Your task to perform on an android device: delete location history Image 0: 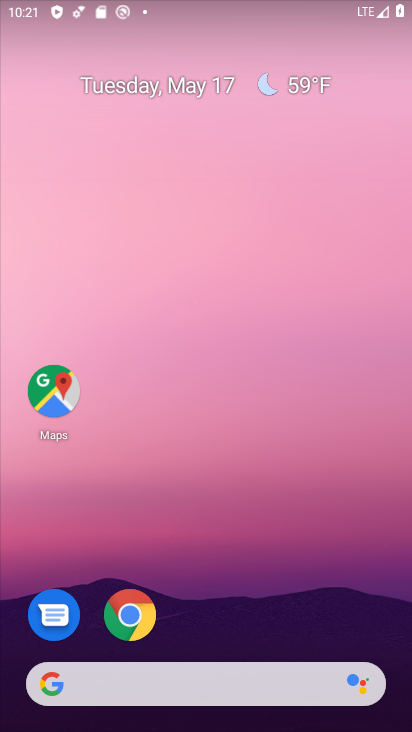
Step 0: click (55, 397)
Your task to perform on an android device: delete location history Image 1: 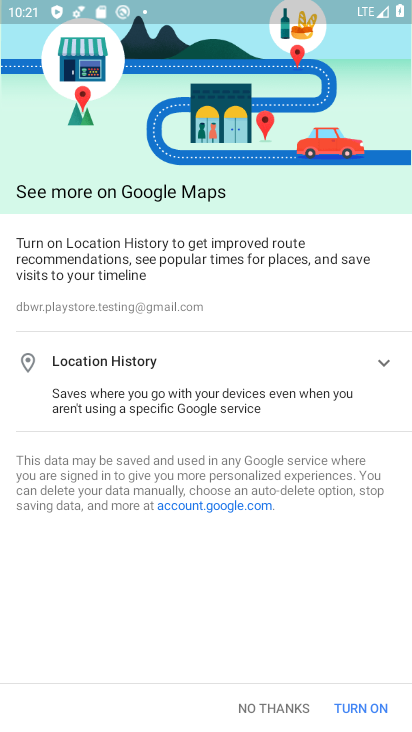
Step 1: click (269, 706)
Your task to perform on an android device: delete location history Image 2: 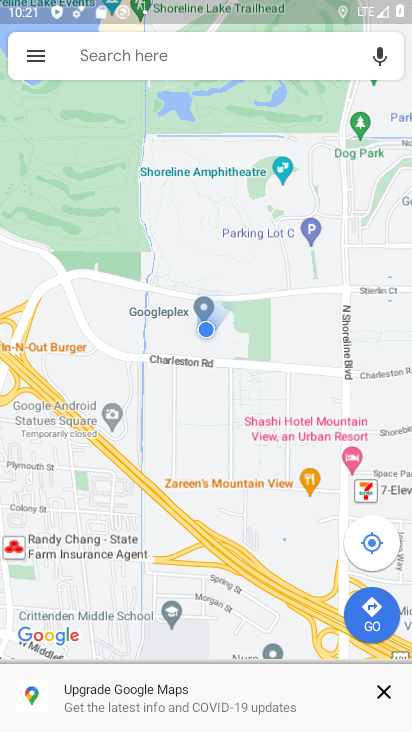
Step 2: click (35, 57)
Your task to perform on an android device: delete location history Image 3: 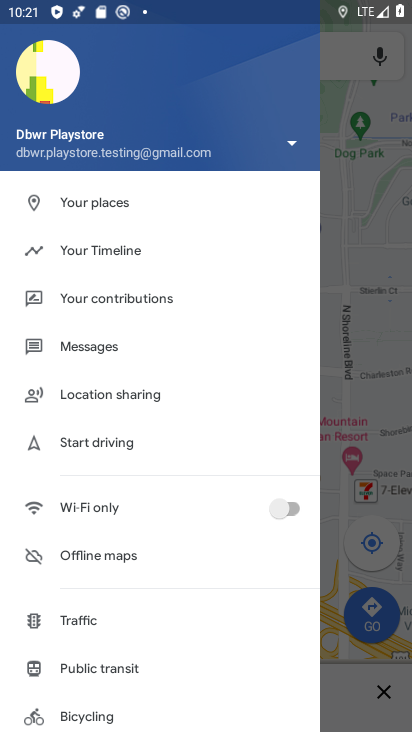
Step 3: click (105, 251)
Your task to perform on an android device: delete location history Image 4: 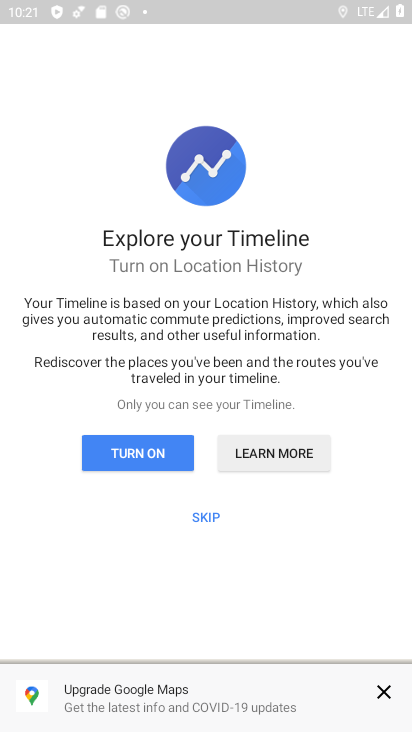
Step 4: click (168, 465)
Your task to perform on an android device: delete location history Image 5: 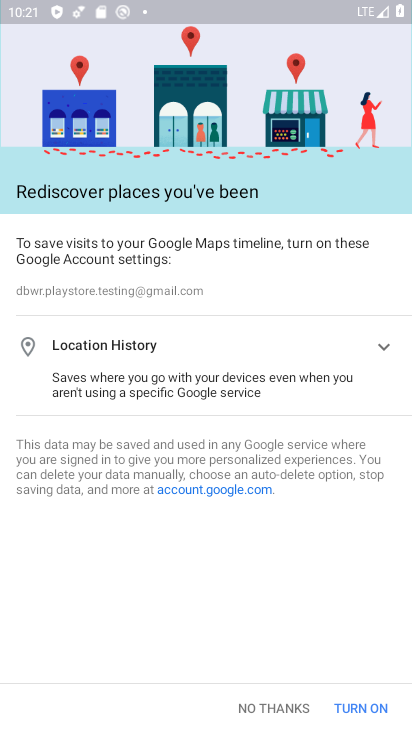
Step 5: click (266, 702)
Your task to perform on an android device: delete location history Image 6: 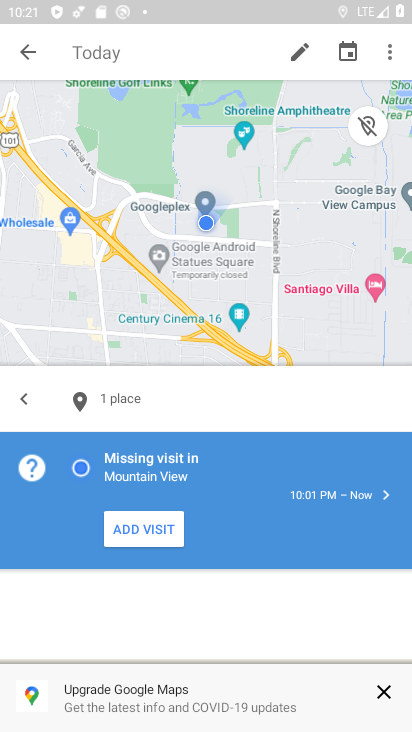
Step 6: click (386, 55)
Your task to perform on an android device: delete location history Image 7: 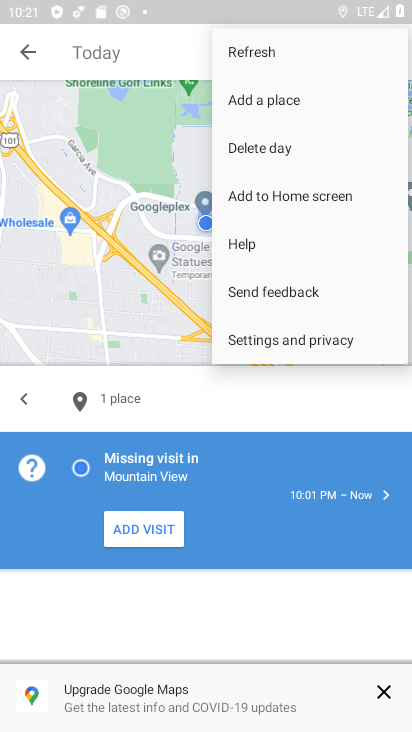
Step 7: click (283, 334)
Your task to perform on an android device: delete location history Image 8: 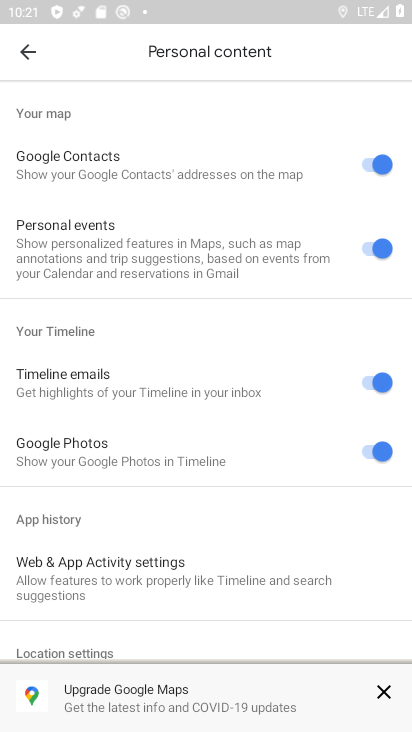
Step 8: drag from (247, 588) to (386, 131)
Your task to perform on an android device: delete location history Image 9: 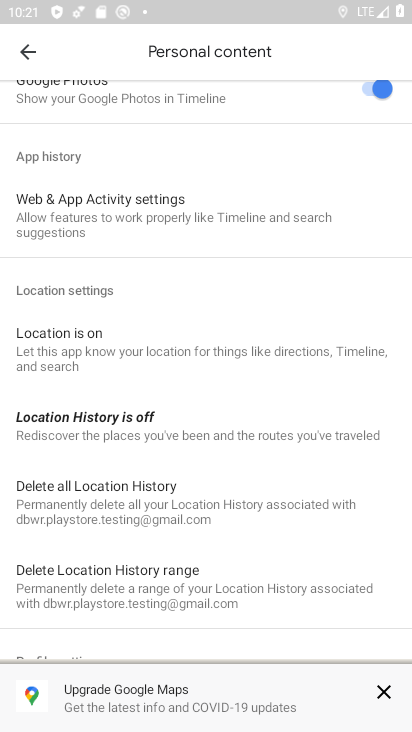
Step 9: click (132, 504)
Your task to perform on an android device: delete location history Image 10: 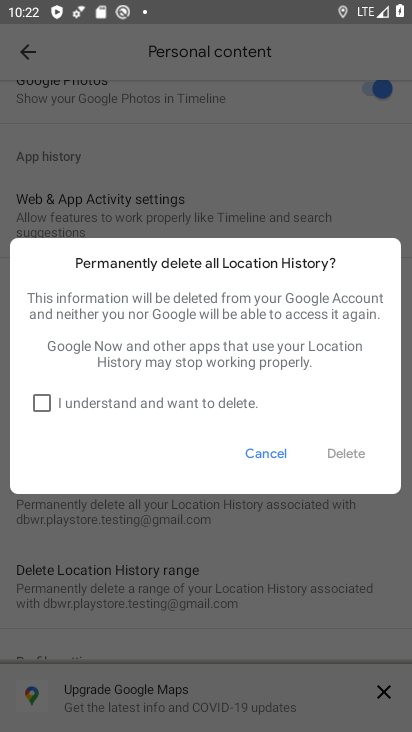
Step 10: click (45, 396)
Your task to perform on an android device: delete location history Image 11: 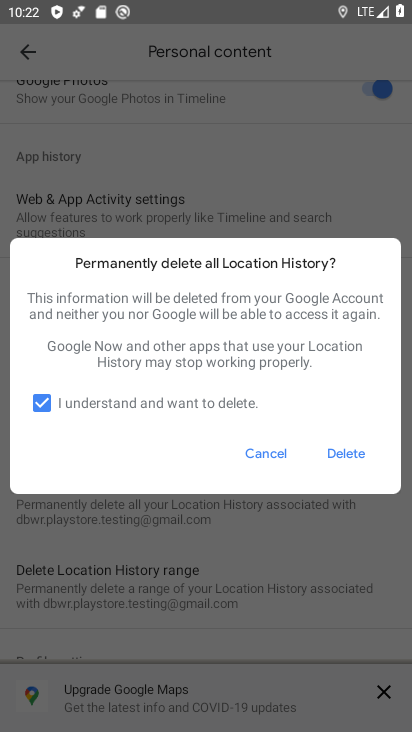
Step 11: click (352, 455)
Your task to perform on an android device: delete location history Image 12: 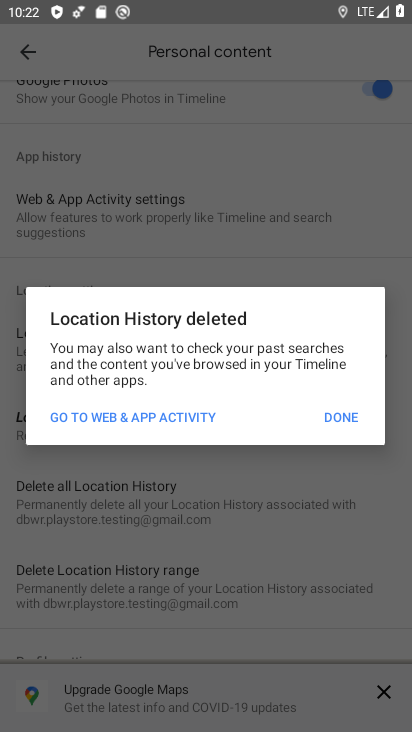
Step 12: click (329, 426)
Your task to perform on an android device: delete location history Image 13: 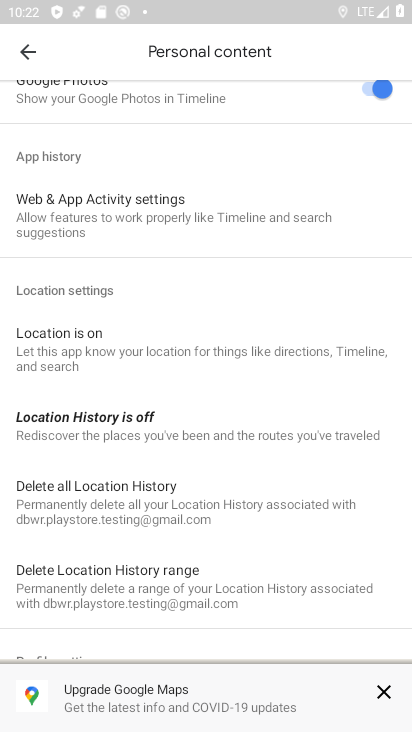
Step 13: task complete